Your task to perform on an android device: Search for the best rated kitchen reno kits on Lowes.com Image 0: 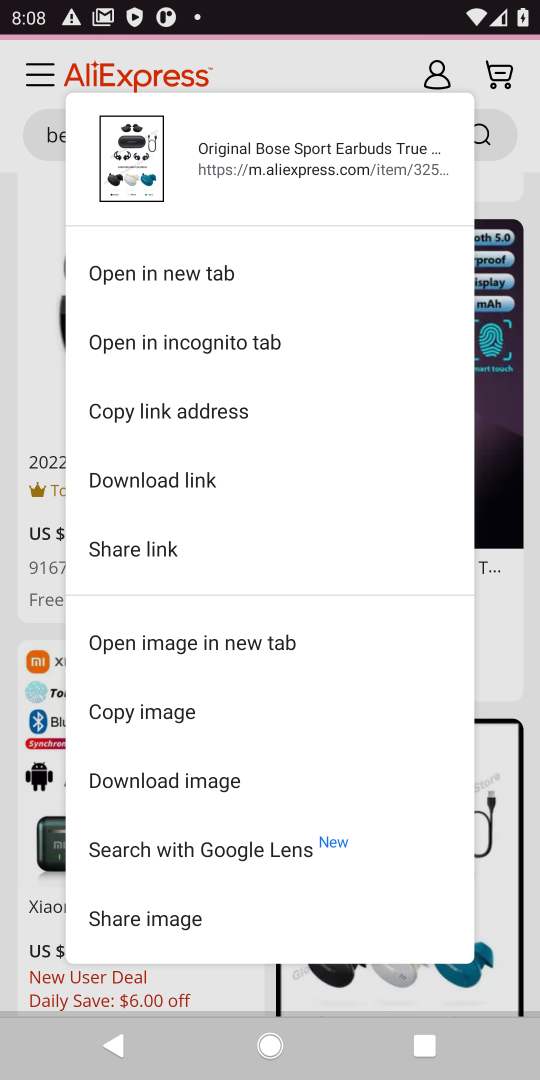
Step 0: press home button
Your task to perform on an android device: Search for the best rated kitchen reno kits on Lowes.com Image 1: 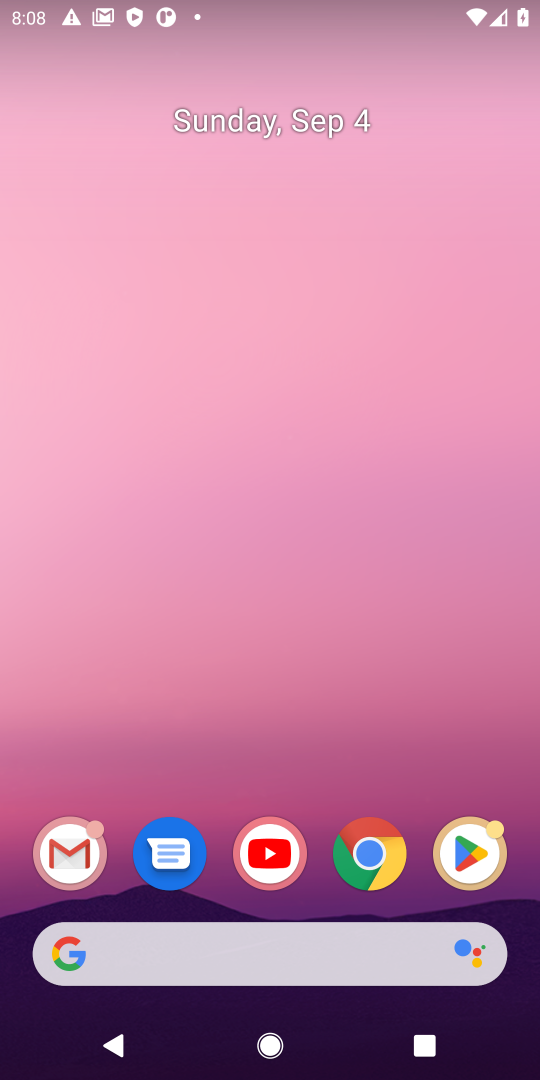
Step 1: click (380, 861)
Your task to perform on an android device: Search for the best rated kitchen reno kits on Lowes.com Image 2: 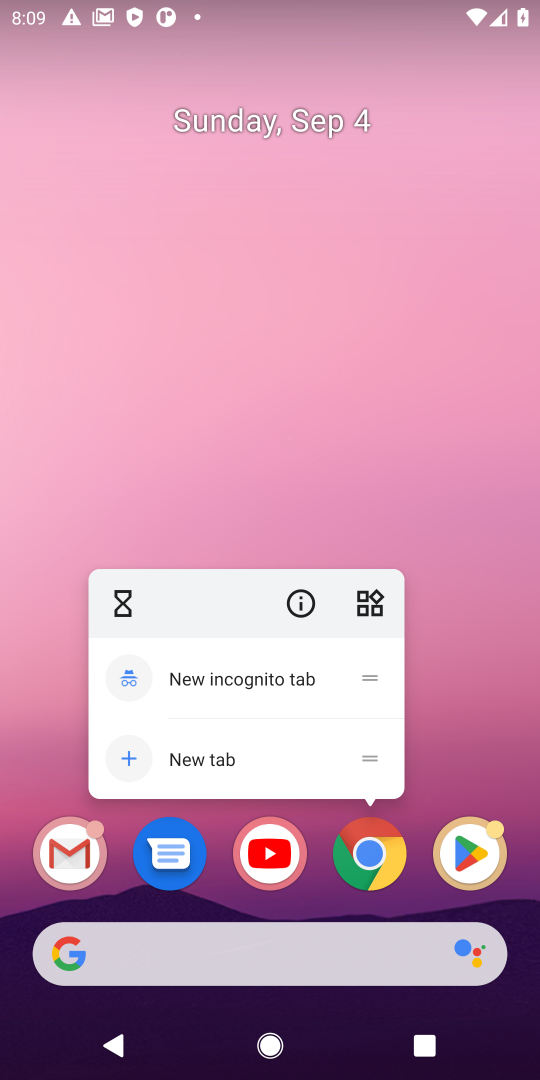
Step 2: click (480, 689)
Your task to perform on an android device: Search for the best rated kitchen reno kits on Lowes.com Image 3: 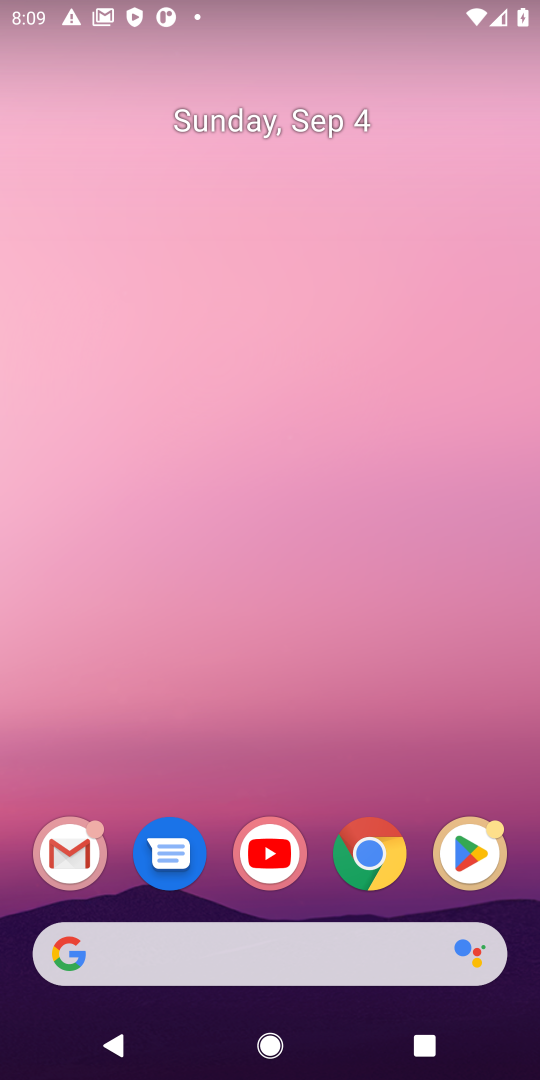
Step 3: drag from (339, 445) to (339, 170)
Your task to perform on an android device: Search for the best rated kitchen reno kits on Lowes.com Image 4: 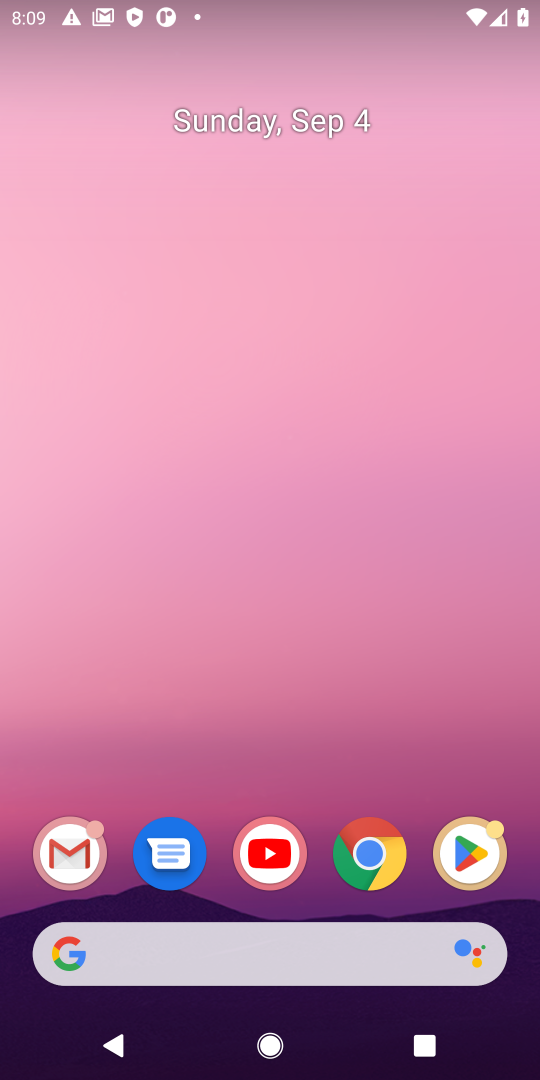
Step 4: drag from (318, 813) to (250, 15)
Your task to perform on an android device: Search for the best rated kitchen reno kits on Lowes.com Image 5: 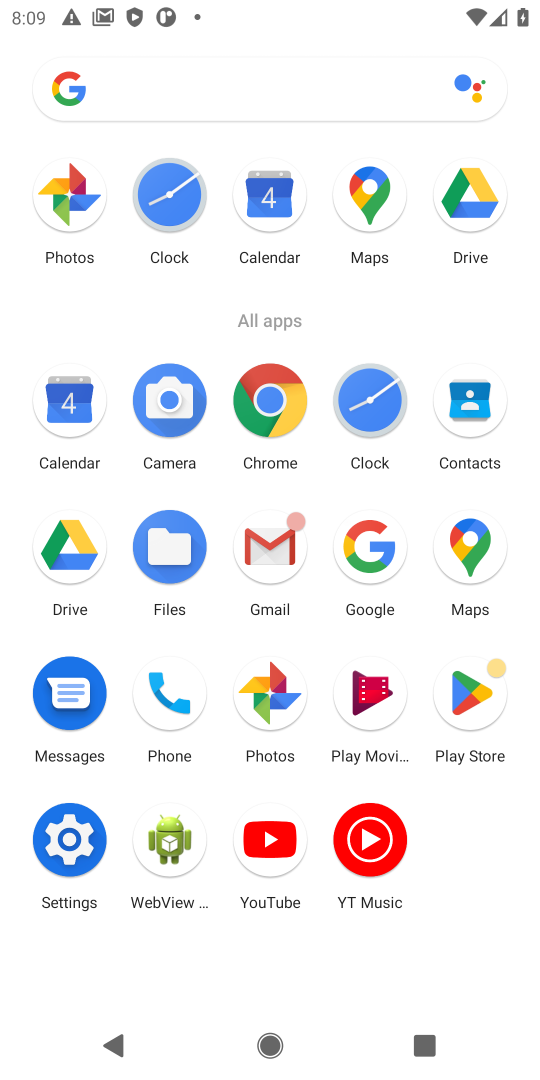
Step 5: click (268, 393)
Your task to perform on an android device: Search for the best rated kitchen reno kits on Lowes.com Image 6: 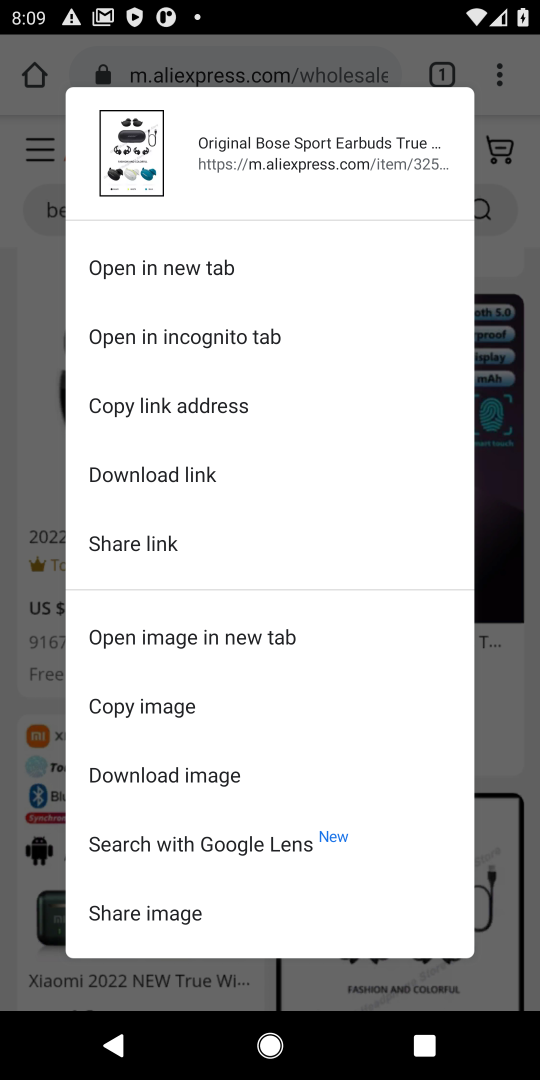
Step 6: click (503, 409)
Your task to perform on an android device: Search for the best rated kitchen reno kits on Lowes.com Image 7: 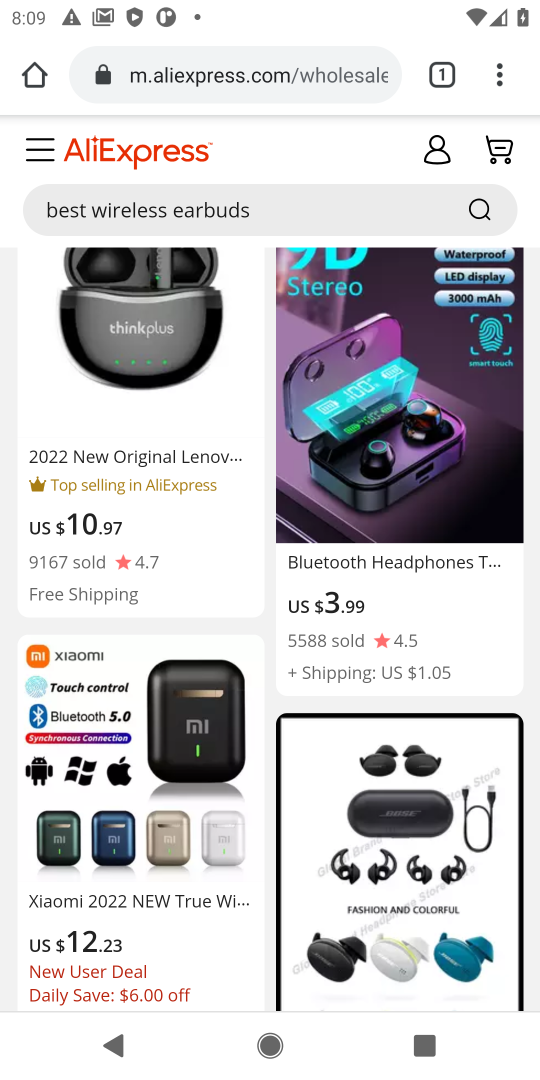
Step 7: click (434, 77)
Your task to perform on an android device: Search for the best rated kitchen reno kits on Lowes.com Image 8: 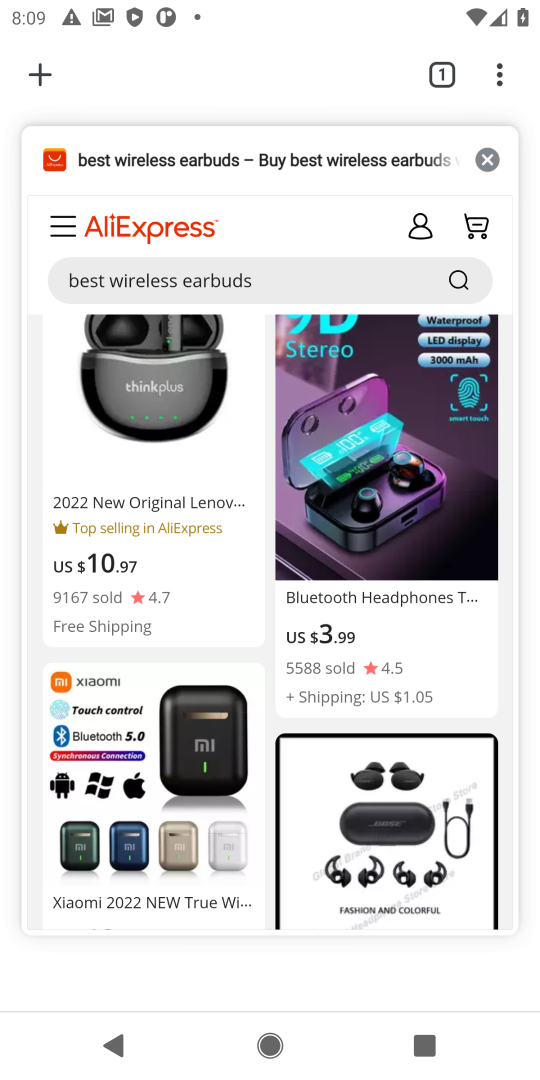
Step 8: click (479, 166)
Your task to perform on an android device: Search for the best rated kitchen reno kits on Lowes.com Image 9: 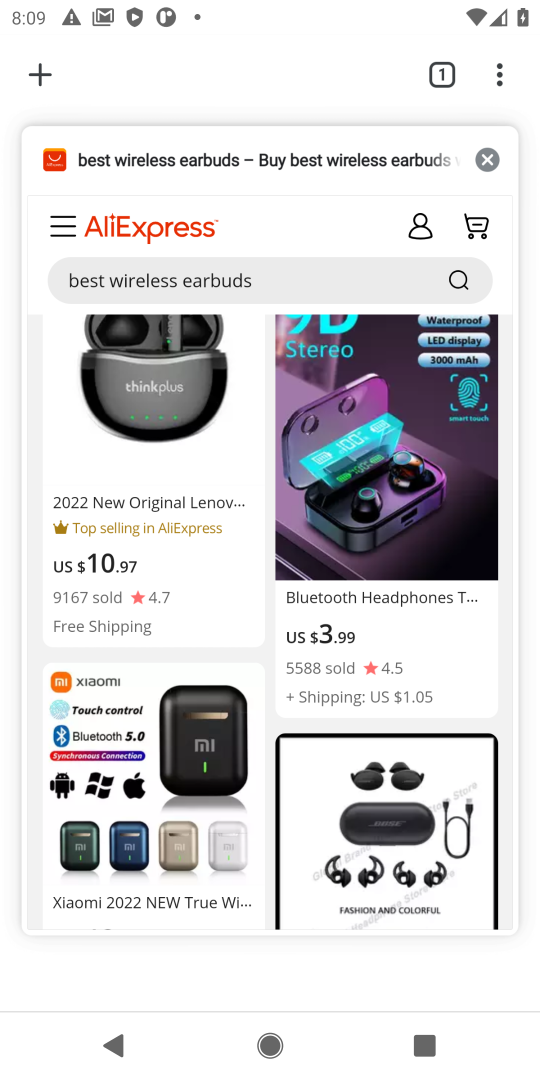
Step 9: click (39, 70)
Your task to perform on an android device: Search for the best rated kitchen reno kits on Lowes.com Image 10: 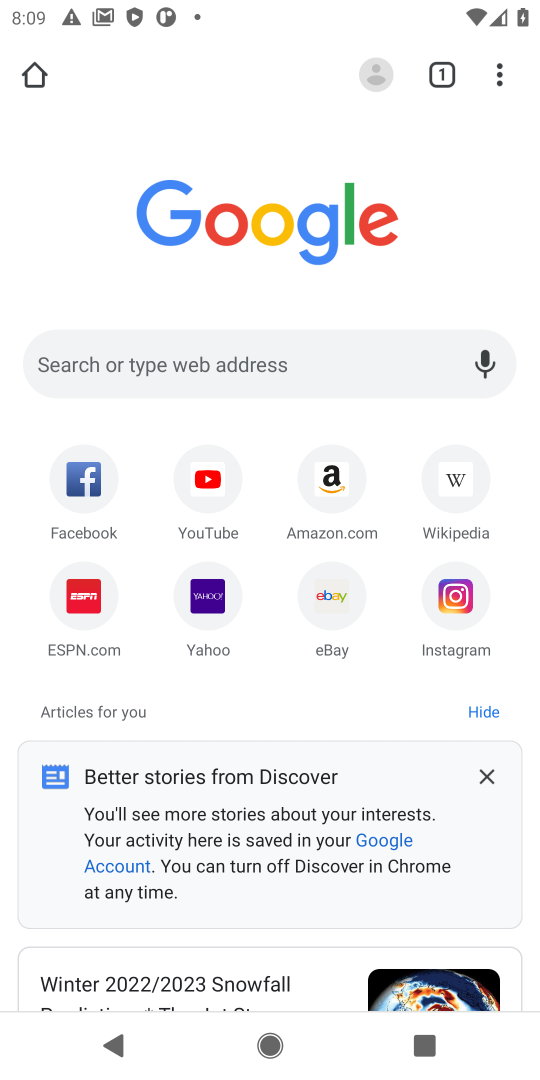
Step 10: click (202, 373)
Your task to perform on an android device: Search for the best rated kitchen reno kits on Lowes.com Image 11: 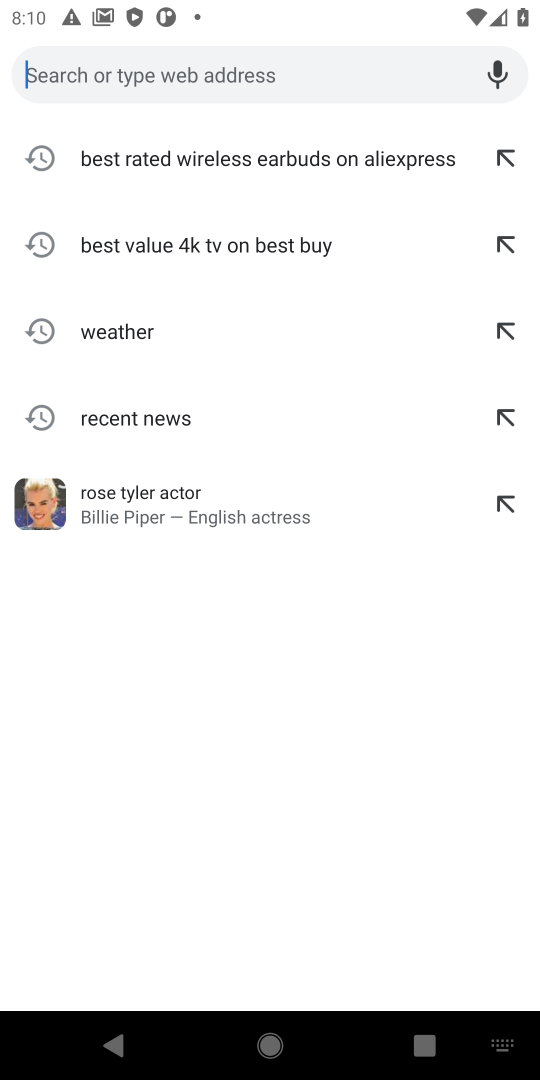
Step 11: type "best rated kitchen reno kits on Lowes.com"
Your task to perform on an android device: Search for the best rated kitchen reno kits on Lowes.com Image 12: 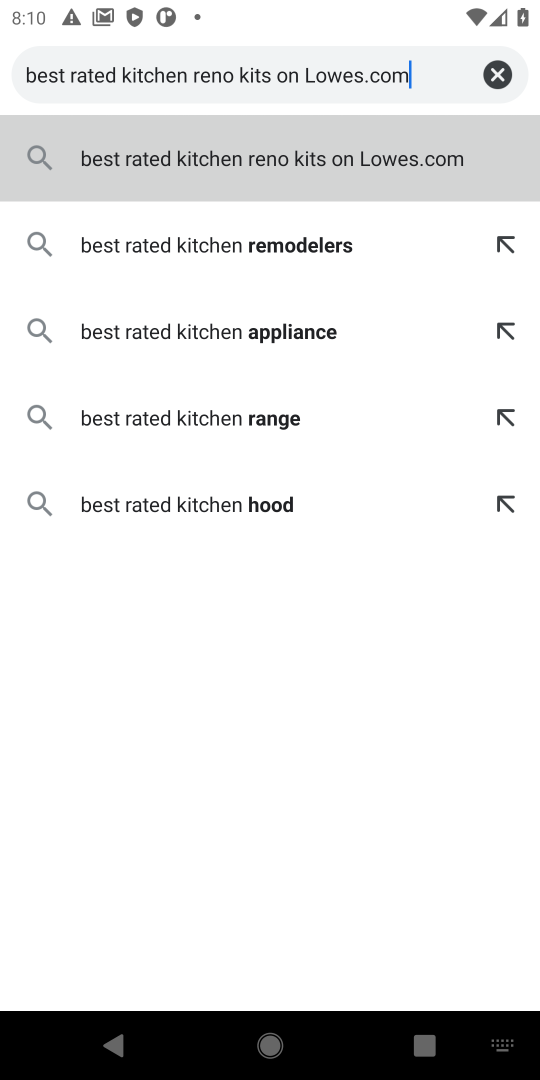
Step 12: click (255, 161)
Your task to perform on an android device: Search for the best rated kitchen reno kits on Lowes.com Image 13: 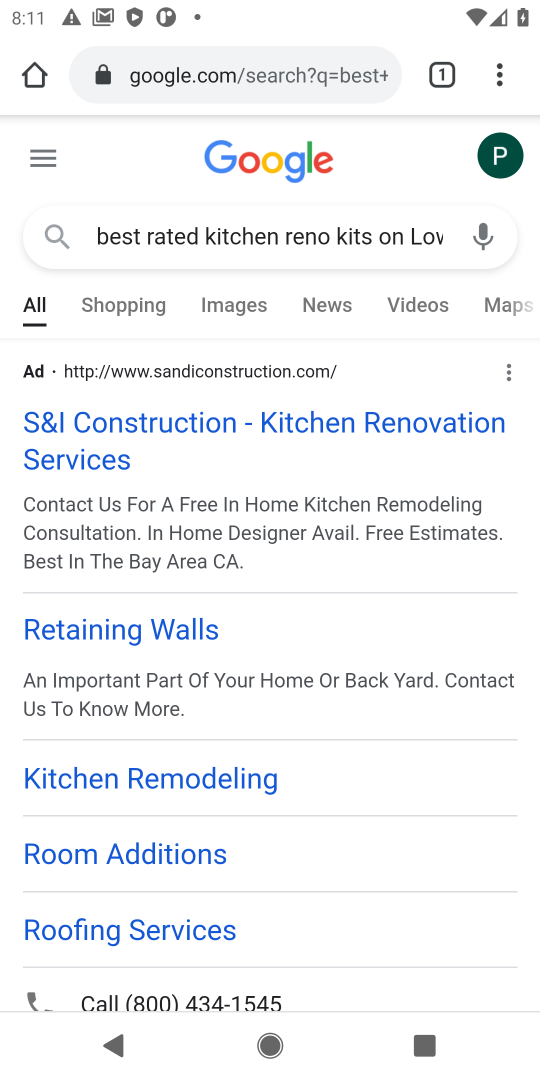
Step 13: drag from (347, 849) to (360, 376)
Your task to perform on an android device: Search for the best rated kitchen reno kits on Lowes.com Image 14: 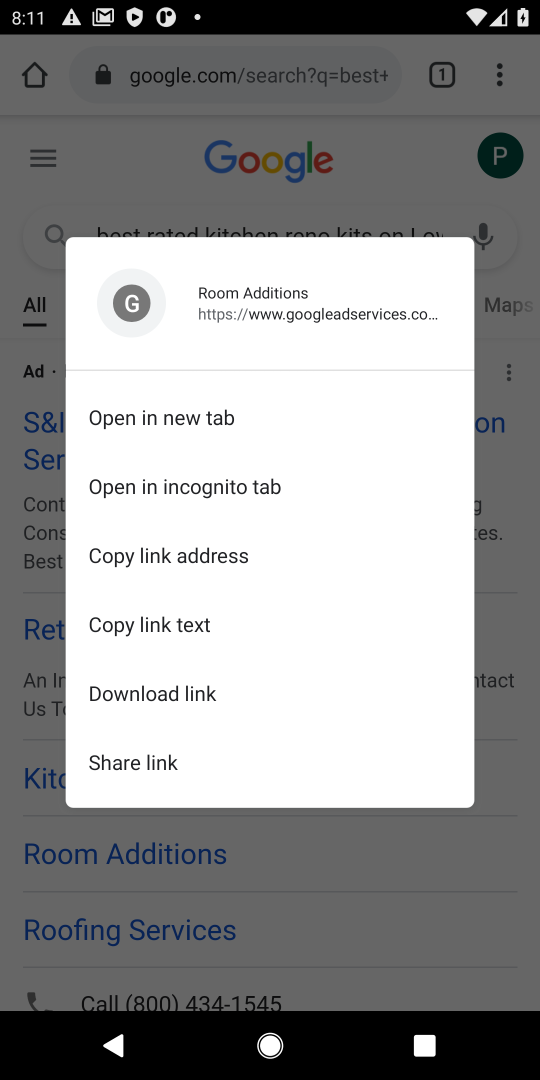
Step 14: click (63, 863)
Your task to perform on an android device: Search for the best rated kitchen reno kits on Lowes.com Image 15: 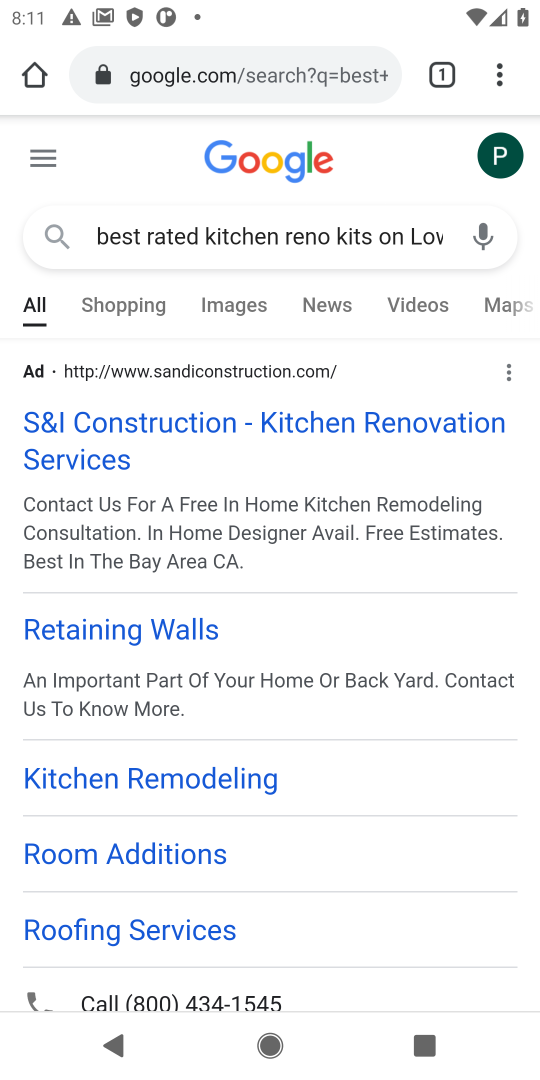
Step 15: drag from (291, 973) to (348, 286)
Your task to perform on an android device: Search for the best rated kitchen reno kits on Lowes.com Image 16: 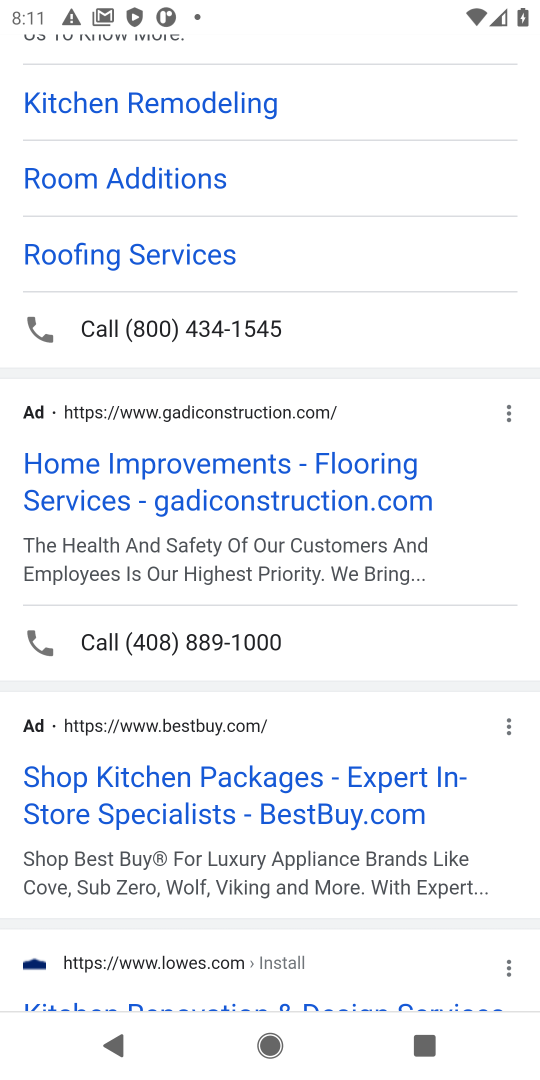
Step 16: drag from (347, 938) to (337, 394)
Your task to perform on an android device: Search for the best rated kitchen reno kits on Lowes.com Image 17: 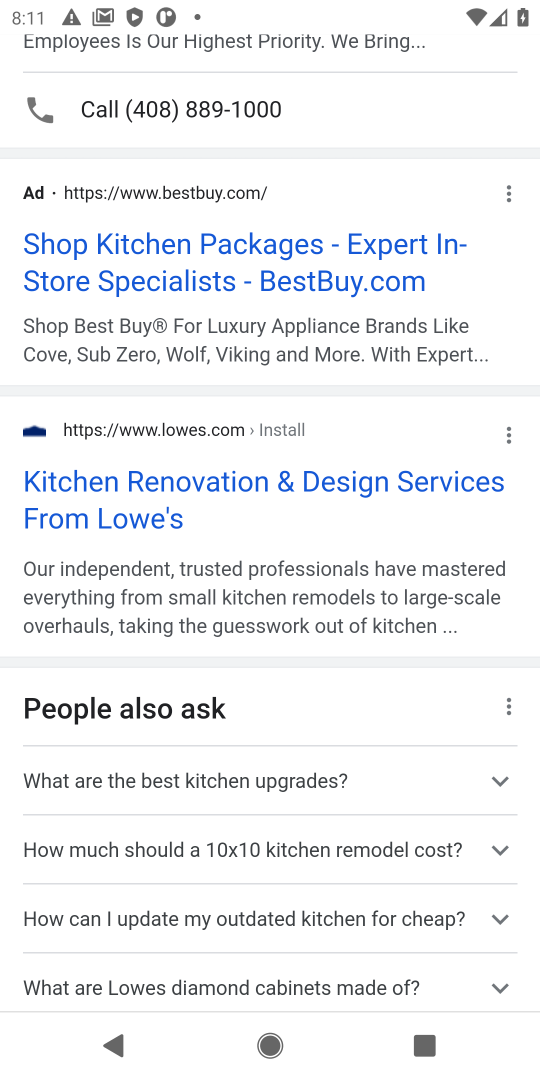
Step 17: click (249, 483)
Your task to perform on an android device: Search for the best rated kitchen reno kits on Lowes.com Image 18: 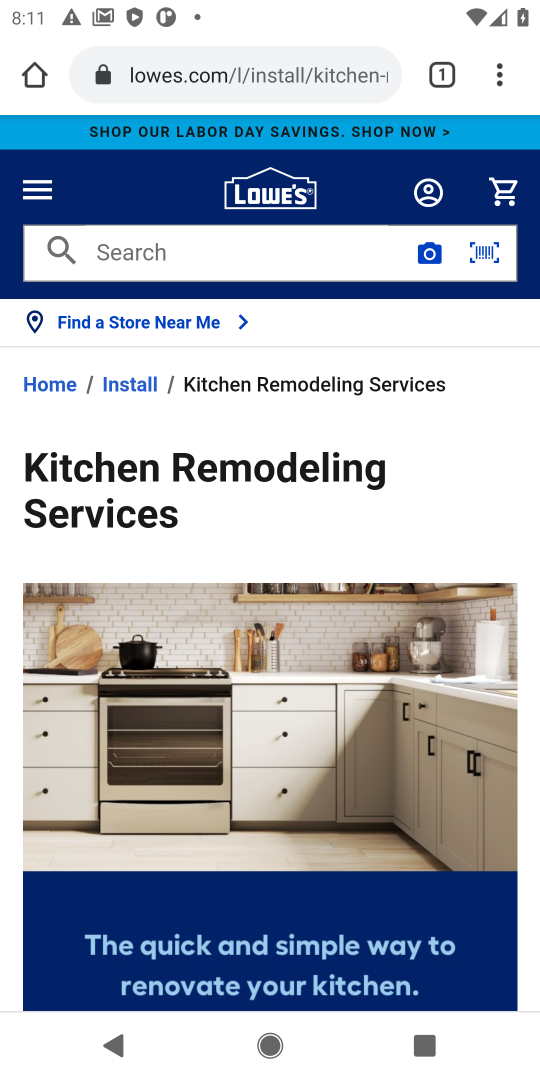
Step 18: drag from (294, 818) to (306, 370)
Your task to perform on an android device: Search for the best rated kitchen reno kits on Lowes.com Image 19: 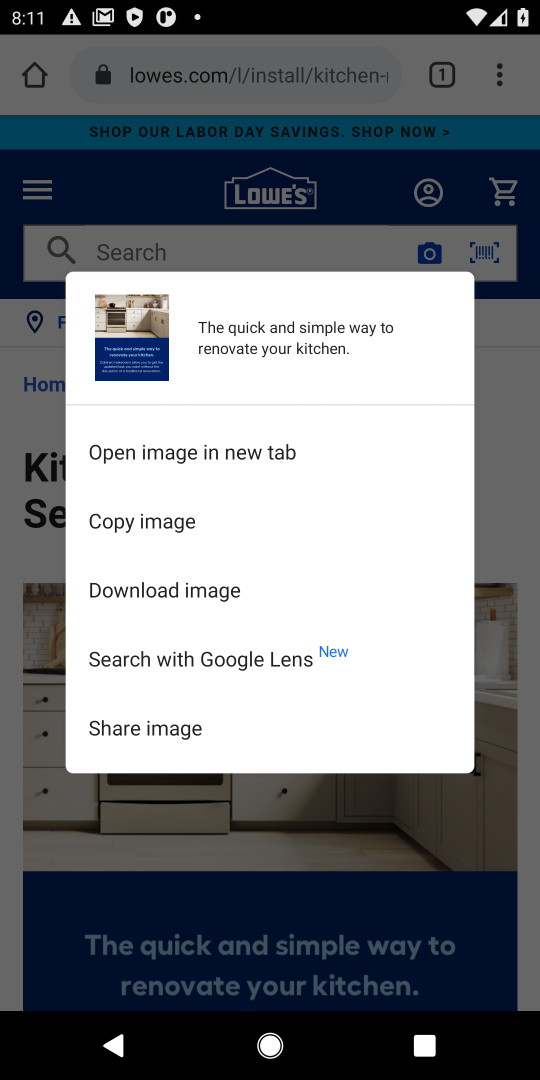
Step 19: click (37, 629)
Your task to perform on an android device: Search for the best rated kitchen reno kits on Lowes.com Image 20: 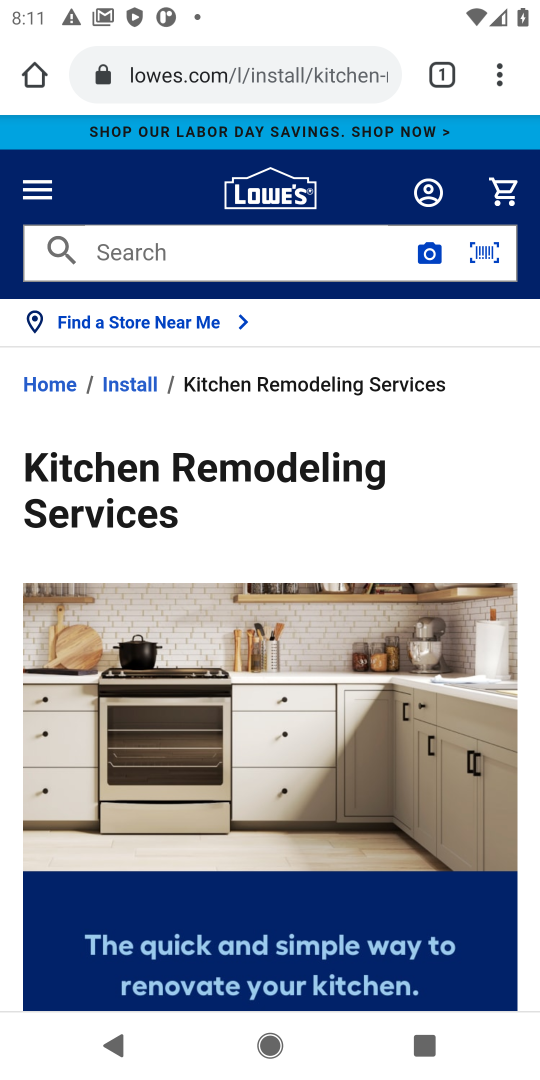
Step 20: task complete